Your task to perform on an android device: toggle data saver in the chrome app Image 0: 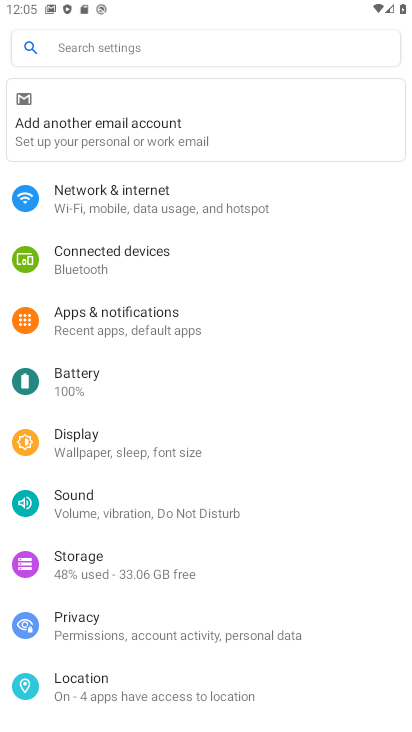
Step 0: press home button
Your task to perform on an android device: toggle data saver in the chrome app Image 1: 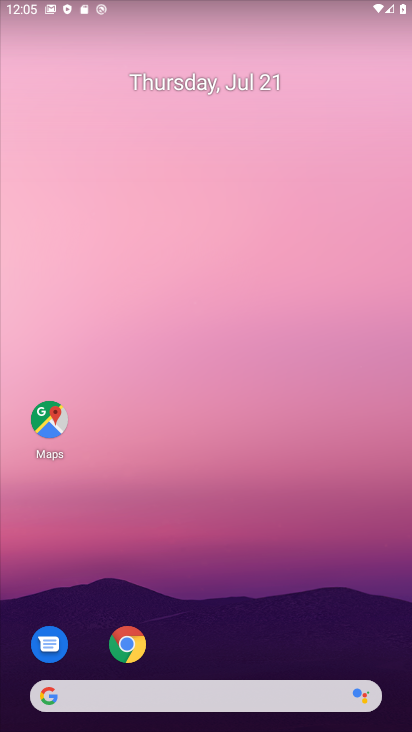
Step 1: click (136, 630)
Your task to perform on an android device: toggle data saver in the chrome app Image 2: 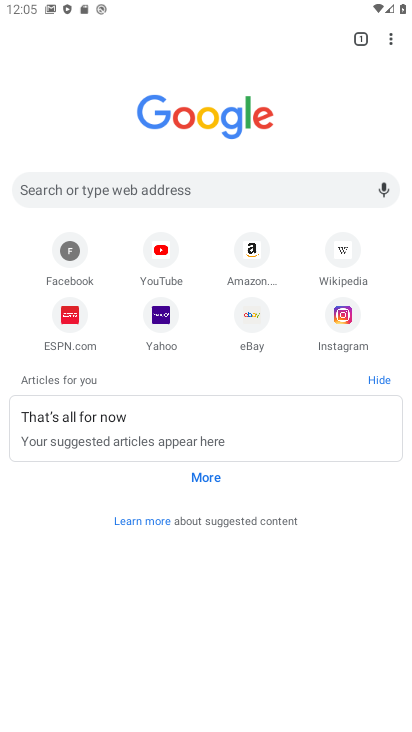
Step 2: click (391, 31)
Your task to perform on an android device: toggle data saver in the chrome app Image 3: 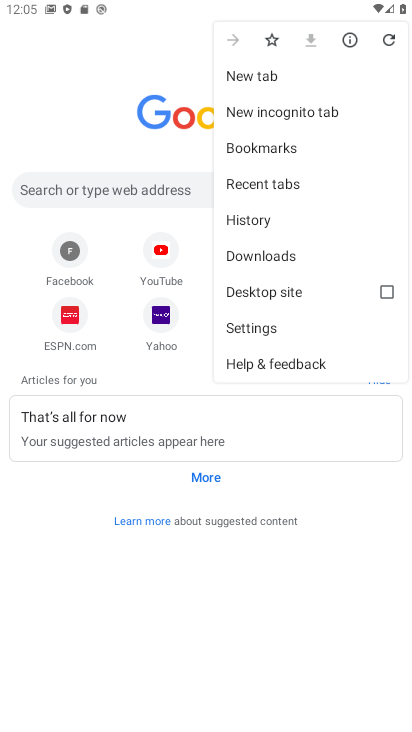
Step 3: click (270, 318)
Your task to perform on an android device: toggle data saver in the chrome app Image 4: 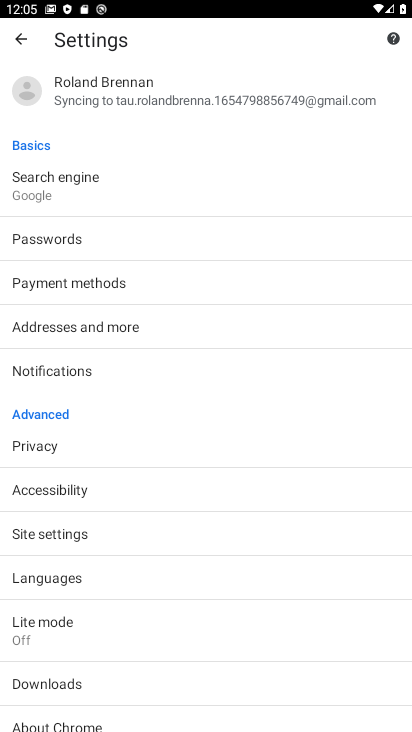
Step 4: click (21, 633)
Your task to perform on an android device: toggle data saver in the chrome app Image 5: 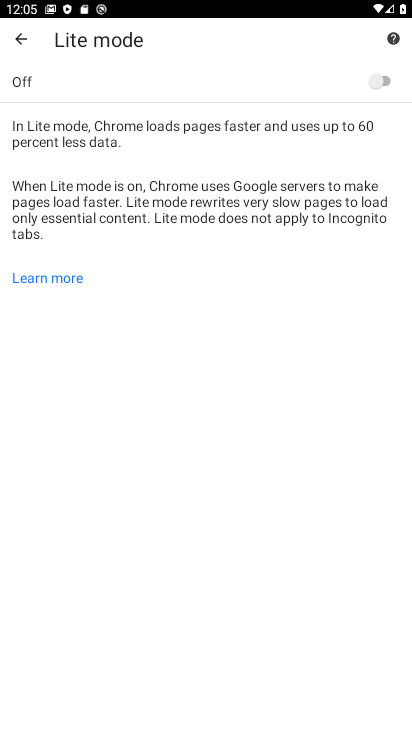
Step 5: click (368, 77)
Your task to perform on an android device: toggle data saver in the chrome app Image 6: 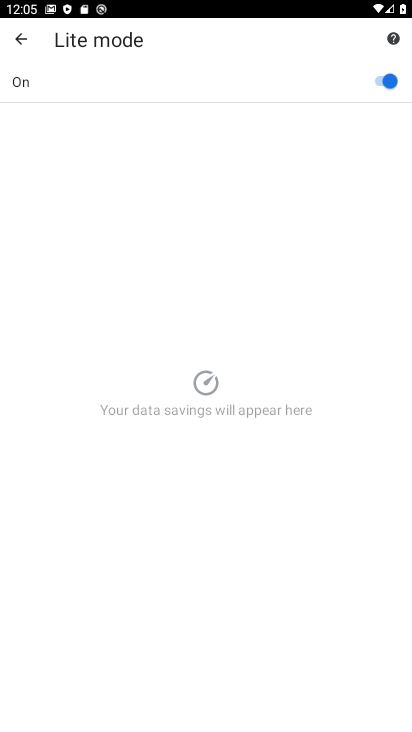
Step 6: task complete